Your task to perform on an android device: What is the recent news? Image 0: 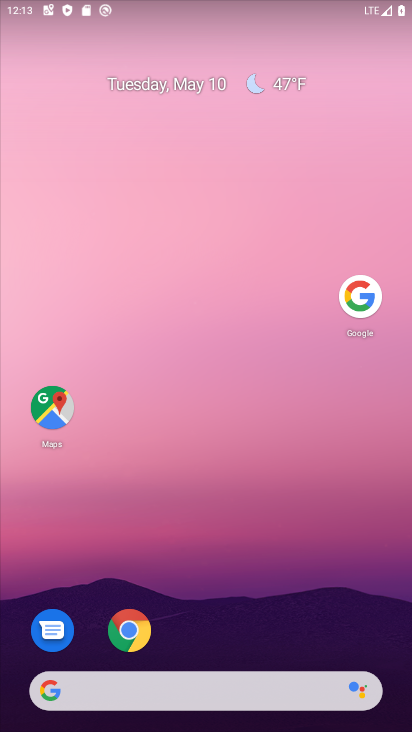
Step 0: click (49, 692)
Your task to perform on an android device: What is the recent news? Image 1: 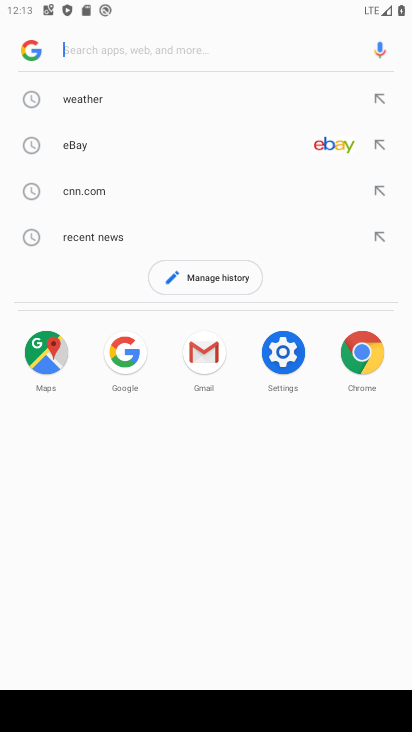
Step 1: click (119, 237)
Your task to perform on an android device: What is the recent news? Image 2: 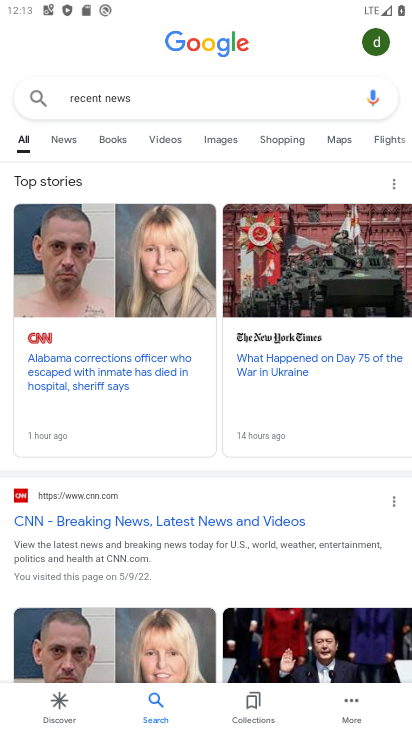
Step 2: click (59, 139)
Your task to perform on an android device: What is the recent news? Image 3: 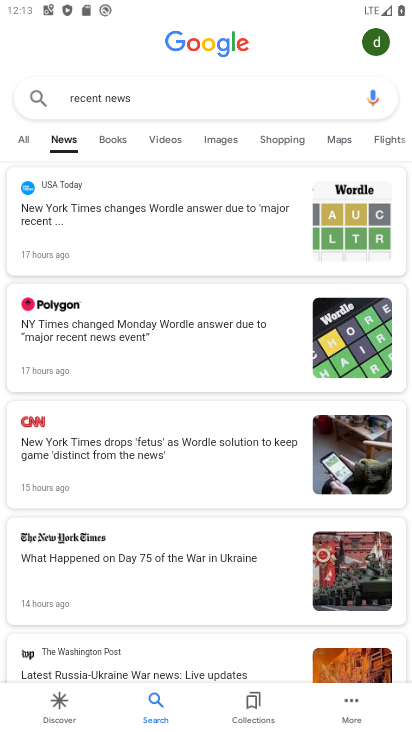
Step 3: task complete